Your task to perform on an android device: Search for sushi restaurants on Maps Image 0: 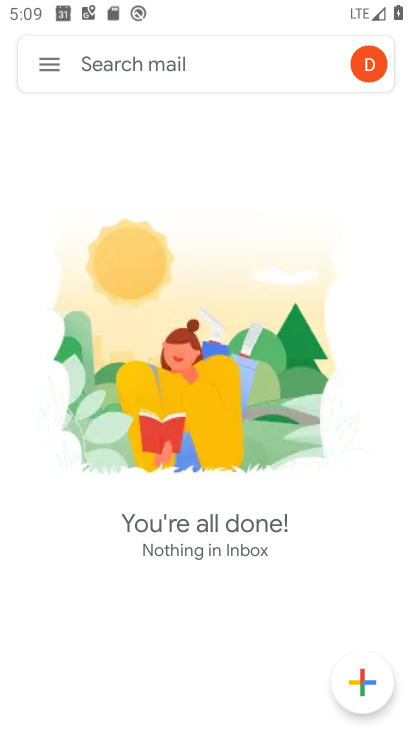
Step 0: press home button
Your task to perform on an android device: Search for sushi restaurants on Maps Image 1: 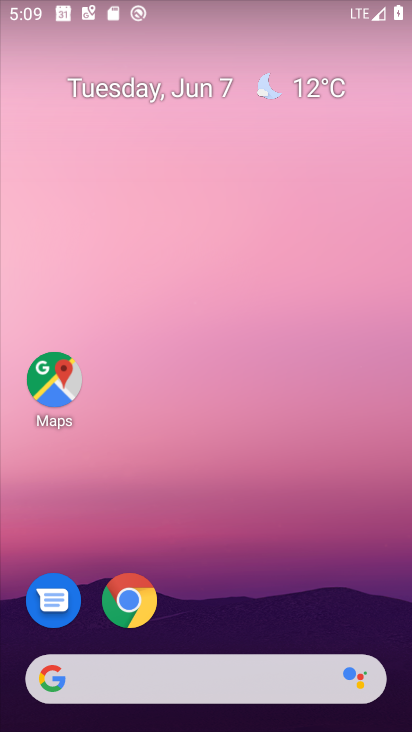
Step 1: click (155, 605)
Your task to perform on an android device: Search for sushi restaurants on Maps Image 2: 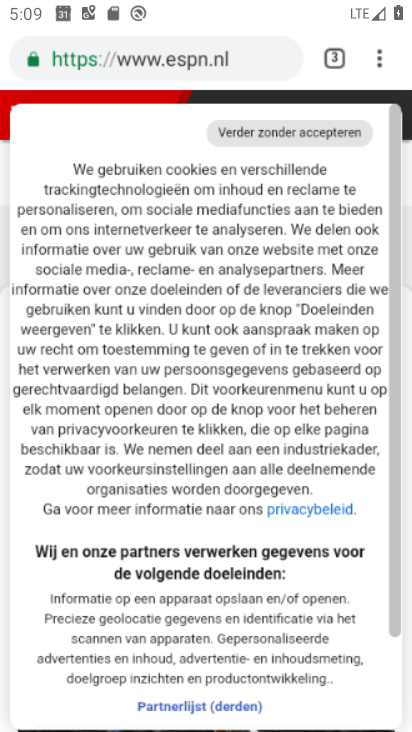
Step 2: press home button
Your task to perform on an android device: Search for sushi restaurants on Maps Image 3: 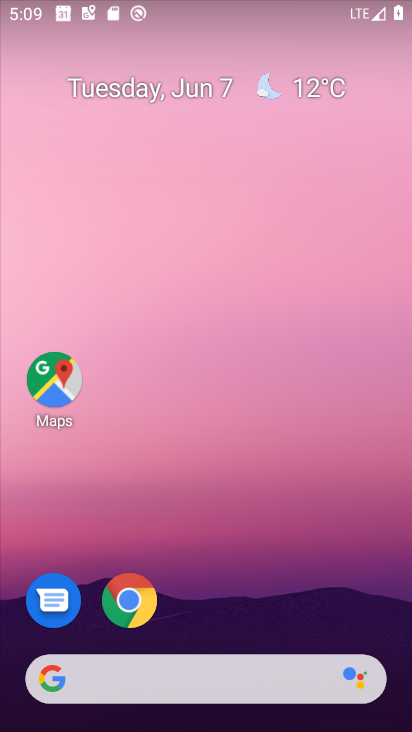
Step 3: click (55, 386)
Your task to perform on an android device: Search for sushi restaurants on Maps Image 4: 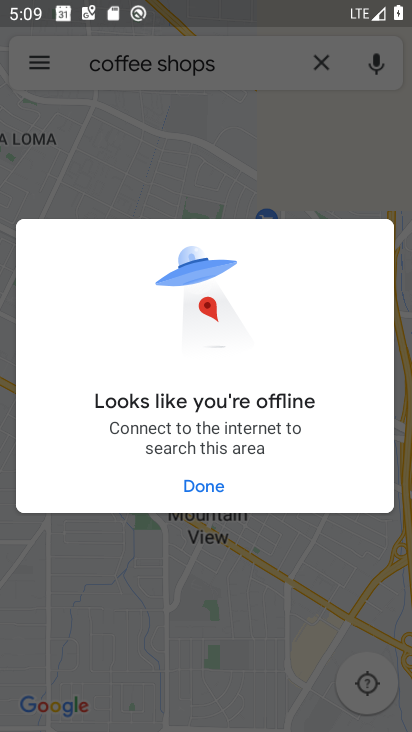
Step 4: click (204, 487)
Your task to perform on an android device: Search for sushi restaurants on Maps Image 5: 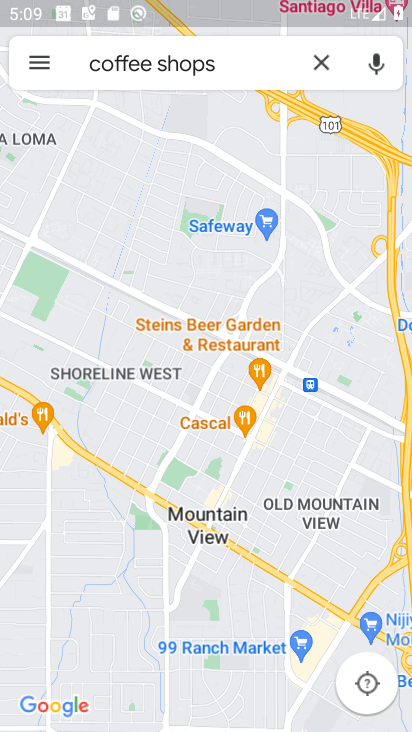
Step 5: click (239, 53)
Your task to perform on an android device: Search for sushi restaurants on Maps Image 6: 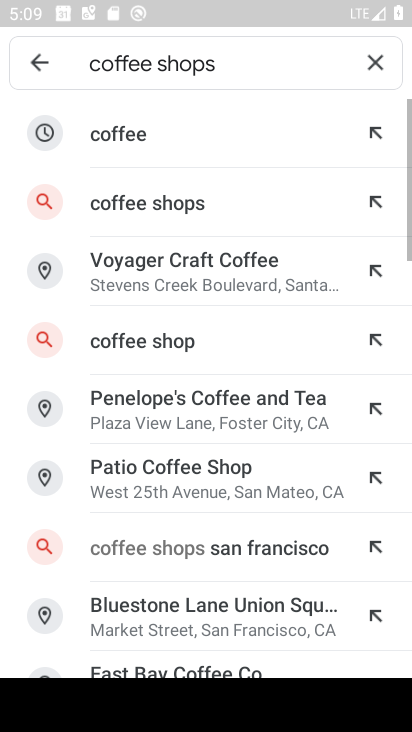
Step 6: click (378, 55)
Your task to perform on an android device: Search for sushi restaurants on Maps Image 7: 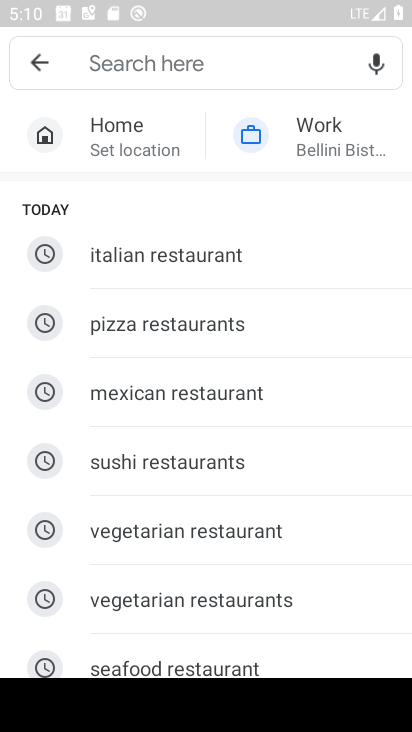
Step 7: type "sushi restaurants"
Your task to perform on an android device: Search for sushi restaurants on Maps Image 8: 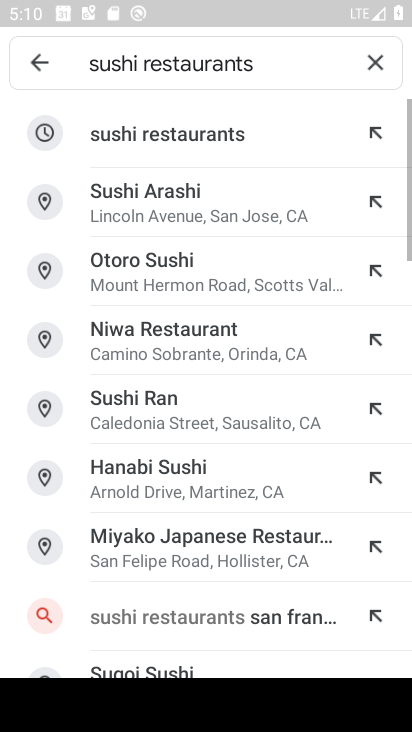
Step 8: click (281, 136)
Your task to perform on an android device: Search for sushi restaurants on Maps Image 9: 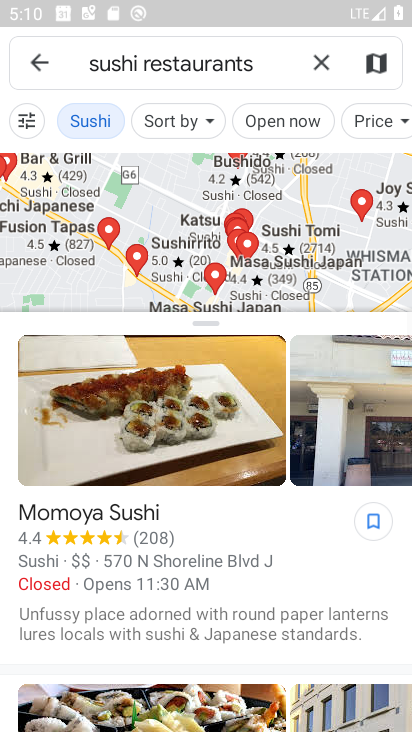
Step 9: task complete